Your task to perform on an android device: snooze an email in the gmail app Image 0: 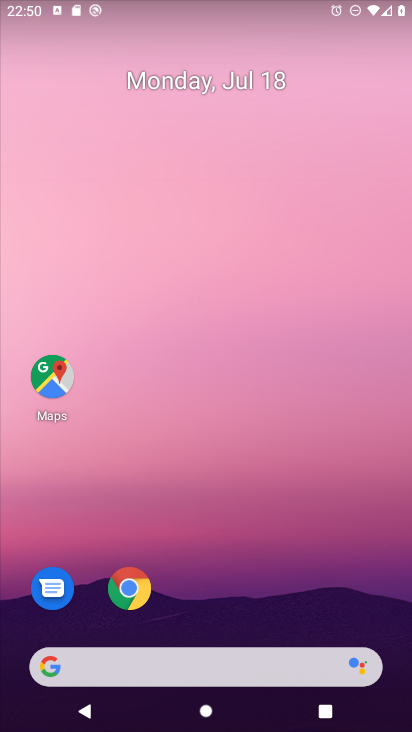
Step 0: drag from (366, 583) to (318, 78)
Your task to perform on an android device: snooze an email in the gmail app Image 1: 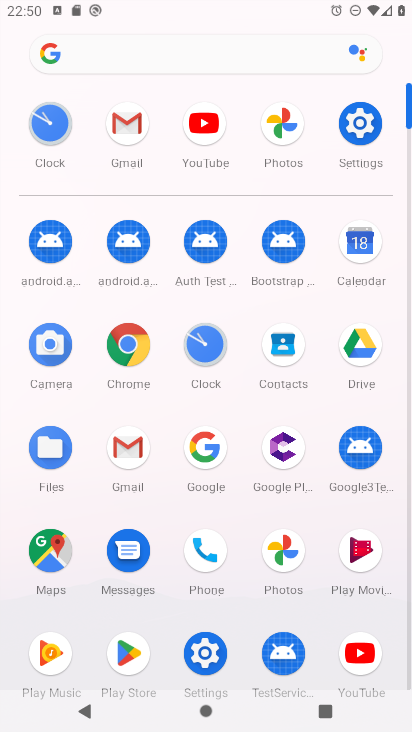
Step 1: click (125, 447)
Your task to perform on an android device: snooze an email in the gmail app Image 2: 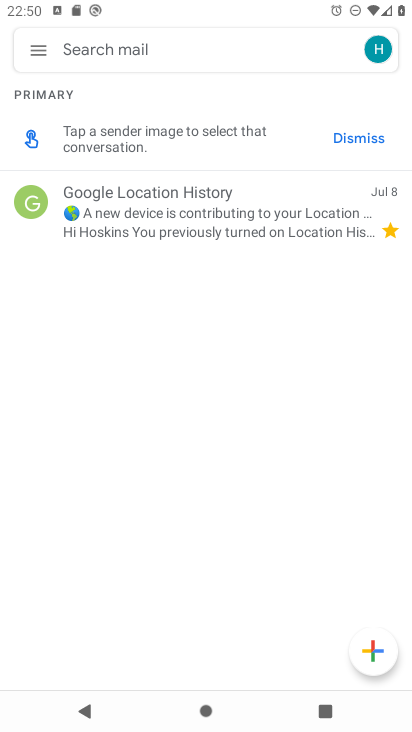
Step 2: click (257, 215)
Your task to perform on an android device: snooze an email in the gmail app Image 3: 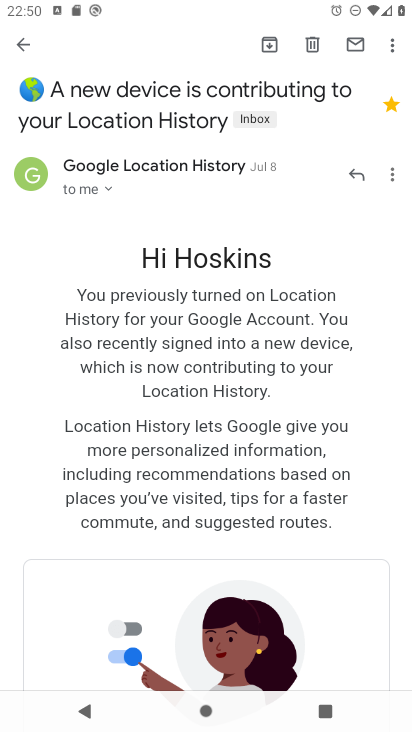
Step 3: click (389, 49)
Your task to perform on an android device: snooze an email in the gmail app Image 4: 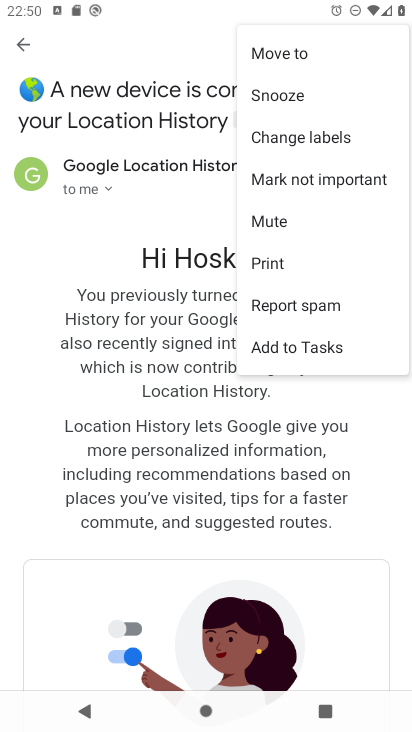
Step 4: click (279, 96)
Your task to perform on an android device: snooze an email in the gmail app Image 5: 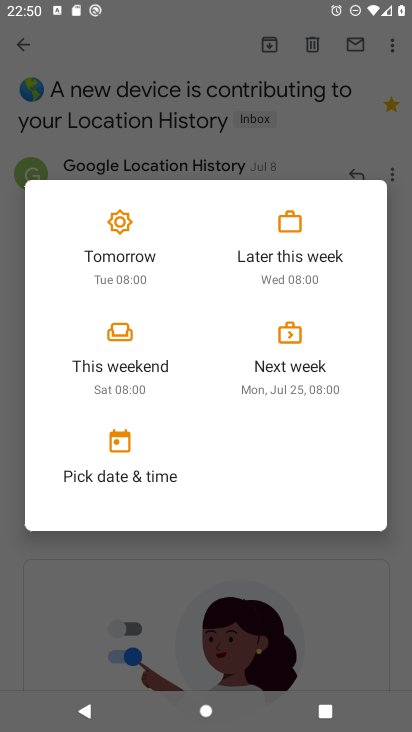
Step 5: click (103, 260)
Your task to perform on an android device: snooze an email in the gmail app Image 6: 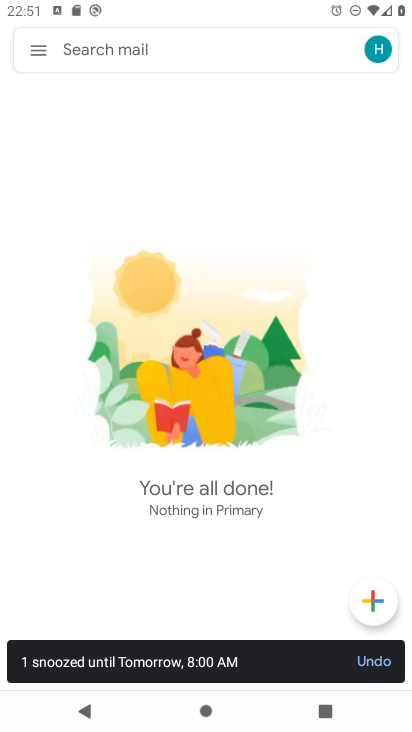
Step 6: task complete